Your task to perform on an android device: Open the map Image 0: 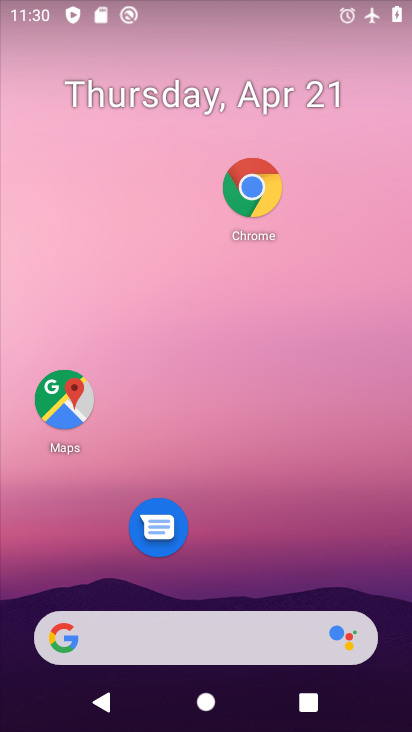
Step 0: drag from (288, 445) to (283, 152)
Your task to perform on an android device: Open the map Image 1: 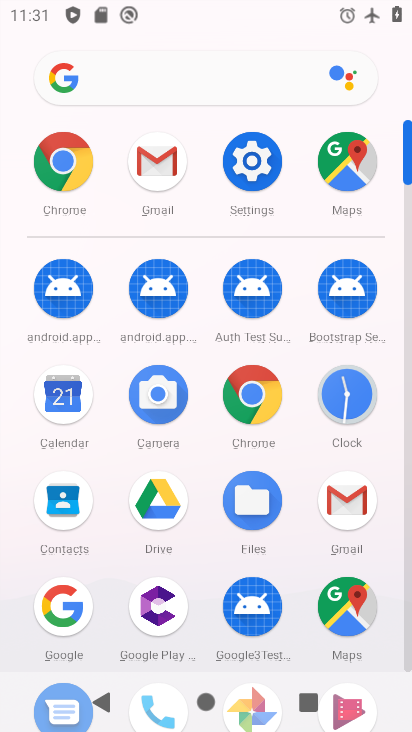
Step 1: click (357, 622)
Your task to perform on an android device: Open the map Image 2: 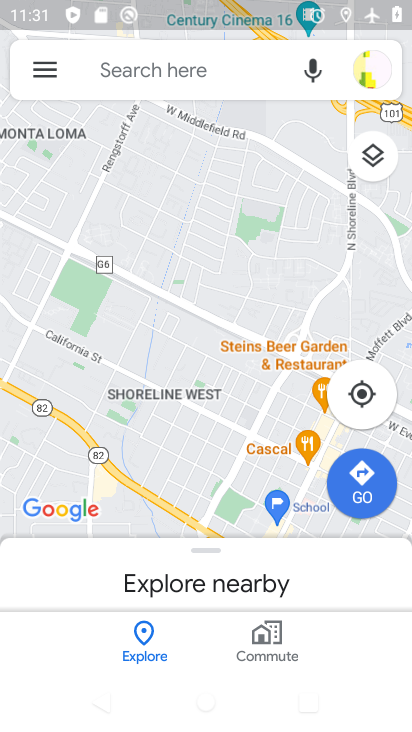
Step 2: task complete